Your task to perform on an android device: turn off priority inbox in the gmail app Image 0: 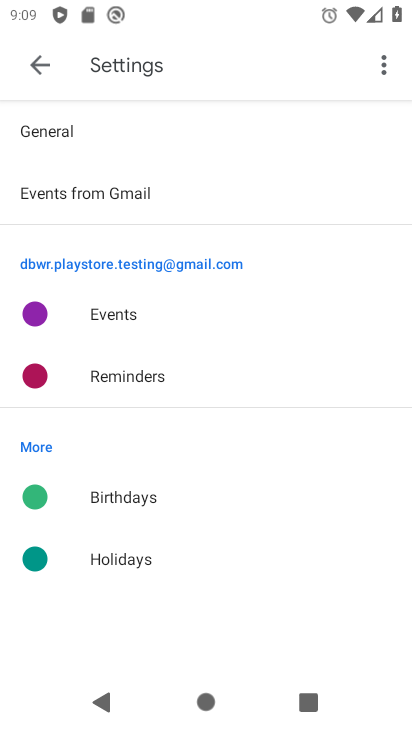
Step 0: press home button
Your task to perform on an android device: turn off priority inbox in the gmail app Image 1: 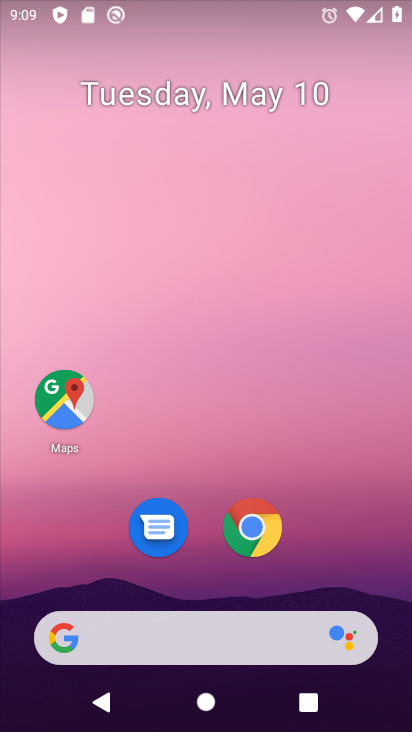
Step 1: drag from (232, 584) to (238, 68)
Your task to perform on an android device: turn off priority inbox in the gmail app Image 2: 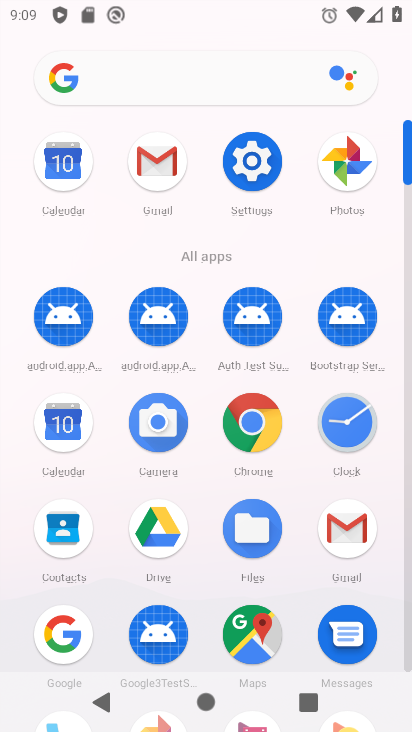
Step 2: click (347, 547)
Your task to perform on an android device: turn off priority inbox in the gmail app Image 3: 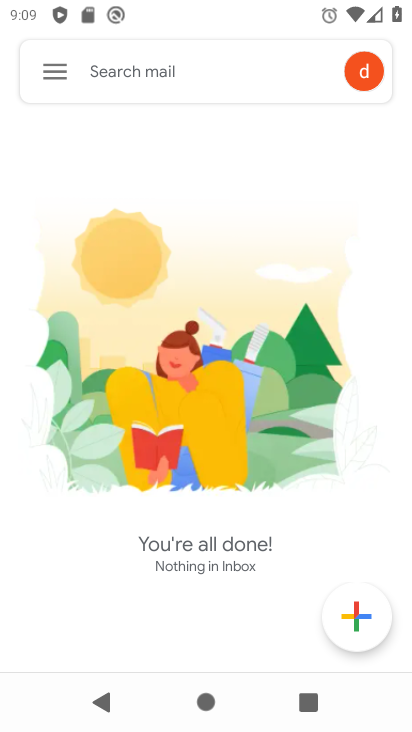
Step 3: click (50, 80)
Your task to perform on an android device: turn off priority inbox in the gmail app Image 4: 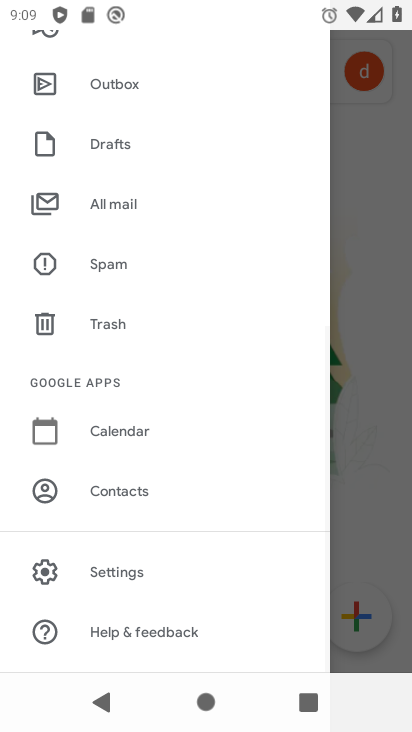
Step 4: click (127, 563)
Your task to perform on an android device: turn off priority inbox in the gmail app Image 5: 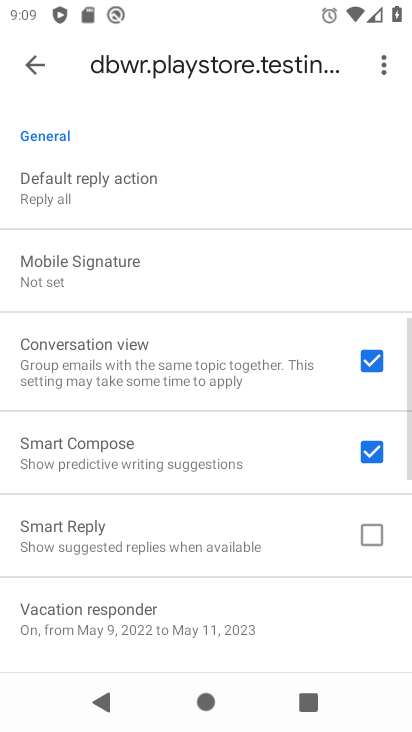
Step 5: drag from (40, 68) to (123, 454)
Your task to perform on an android device: turn off priority inbox in the gmail app Image 6: 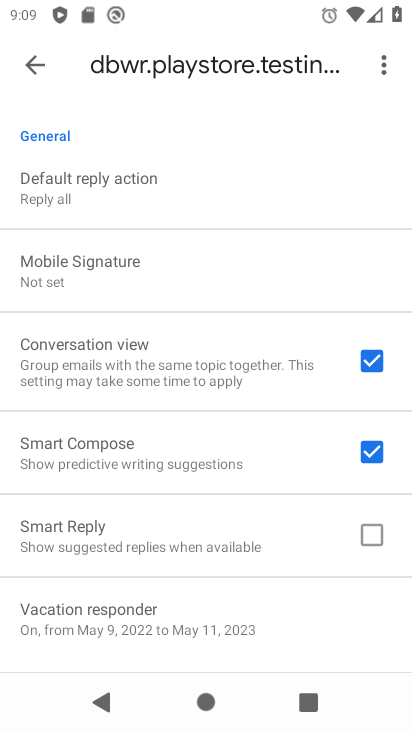
Step 6: drag from (88, 155) to (127, 652)
Your task to perform on an android device: turn off priority inbox in the gmail app Image 7: 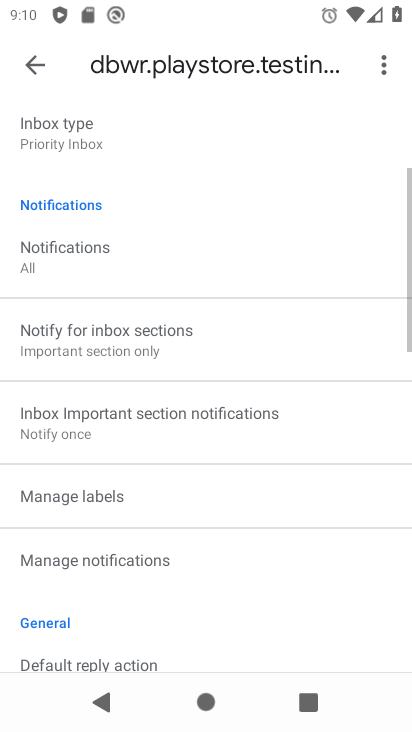
Step 7: drag from (195, 224) to (187, 557)
Your task to perform on an android device: turn off priority inbox in the gmail app Image 8: 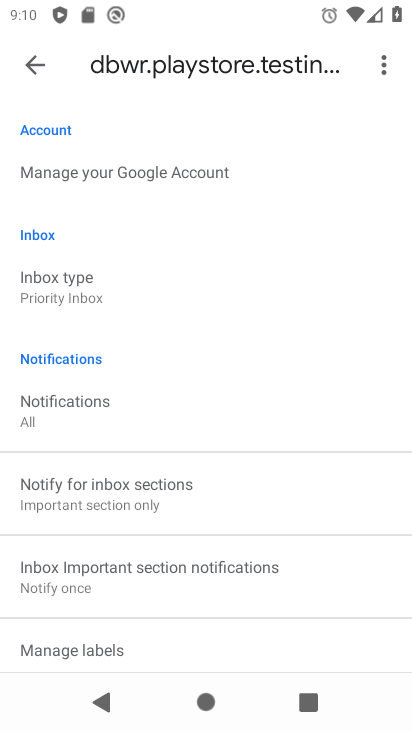
Step 8: click (87, 297)
Your task to perform on an android device: turn off priority inbox in the gmail app Image 9: 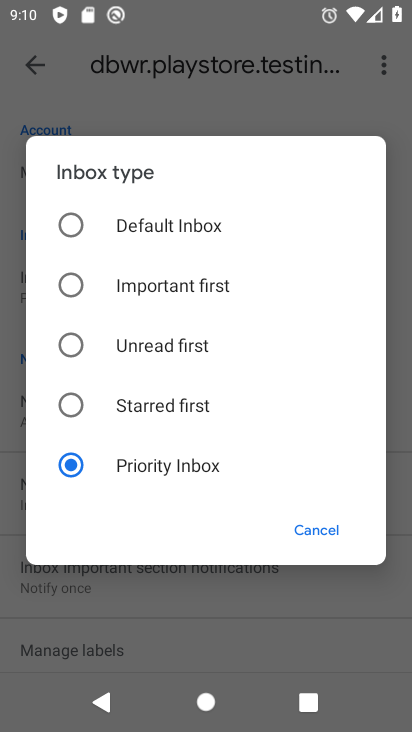
Step 9: click (137, 223)
Your task to perform on an android device: turn off priority inbox in the gmail app Image 10: 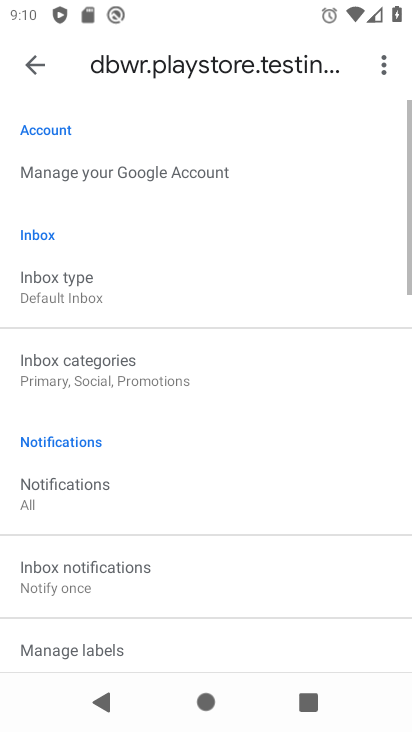
Step 10: task complete